Your task to perform on an android device: Open the calendar app, open the side menu, and click the "Day" option Image 0: 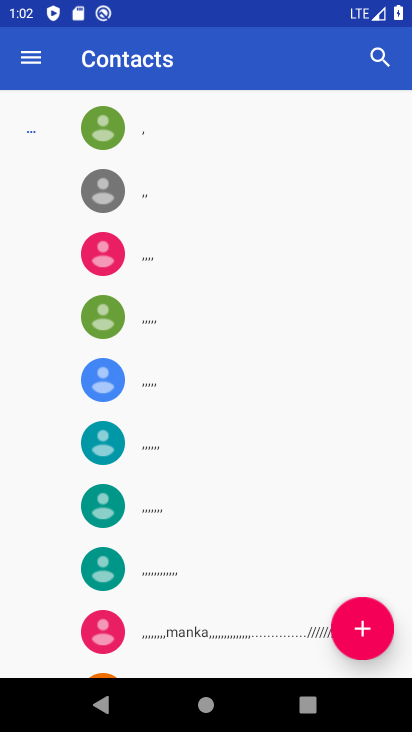
Step 0: press home button
Your task to perform on an android device: Open the calendar app, open the side menu, and click the "Day" option Image 1: 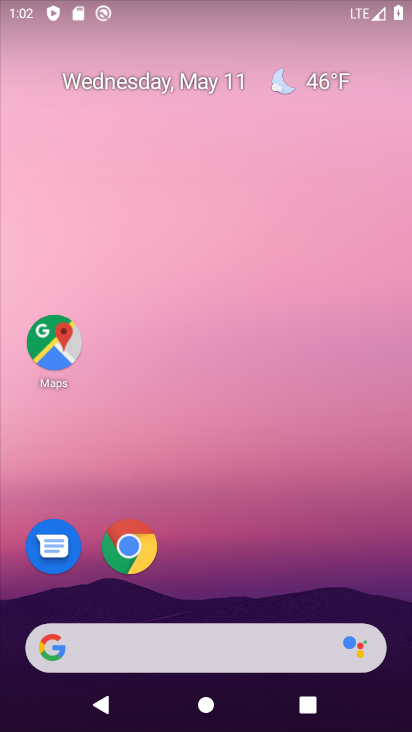
Step 1: drag from (291, 674) to (310, 328)
Your task to perform on an android device: Open the calendar app, open the side menu, and click the "Day" option Image 2: 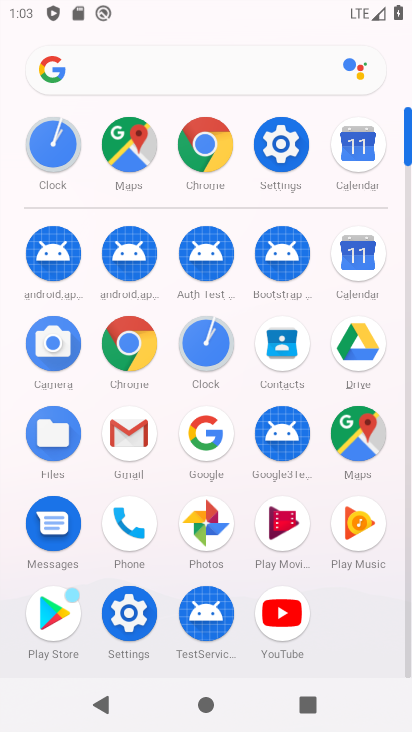
Step 2: click (352, 250)
Your task to perform on an android device: Open the calendar app, open the side menu, and click the "Day" option Image 3: 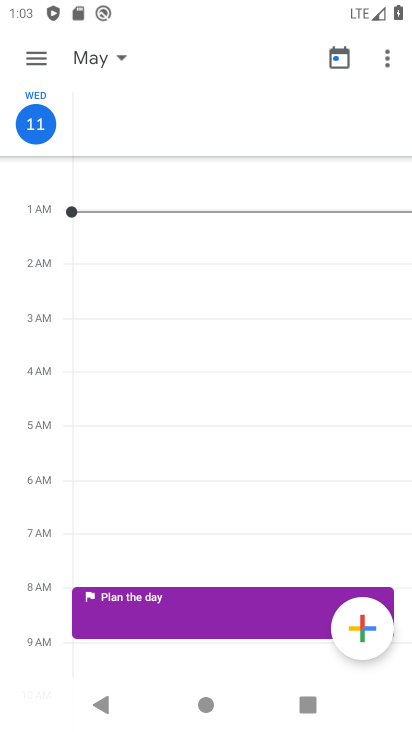
Step 3: click (30, 63)
Your task to perform on an android device: Open the calendar app, open the side menu, and click the "Day" option Image 4: 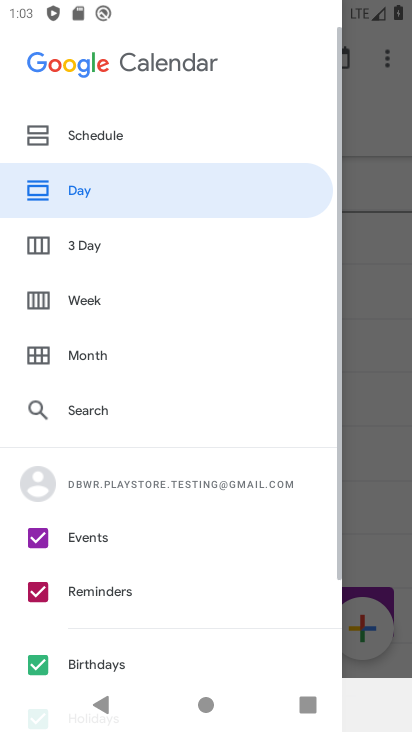
Step 4: click (94, 192)
Your task to perform on an android device: Open the calendar app, open the side menu, and click the "Day" option Image 5: 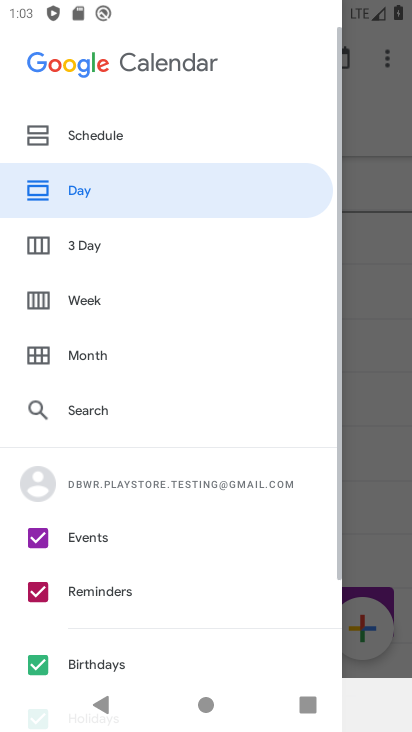
Step 5: click (100, 184)
Your task to perform on an android device: Open the calendar app, open the side menu, and click the "Day" option Image 6: 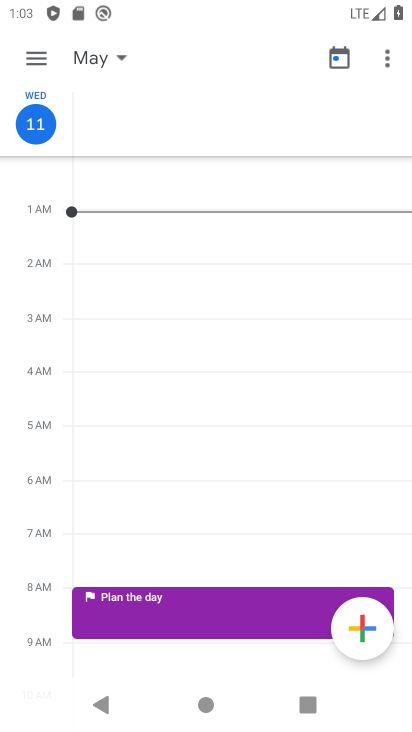
Step 6: task complete